Your task to perform on an android device: Open my contact list Image 0: 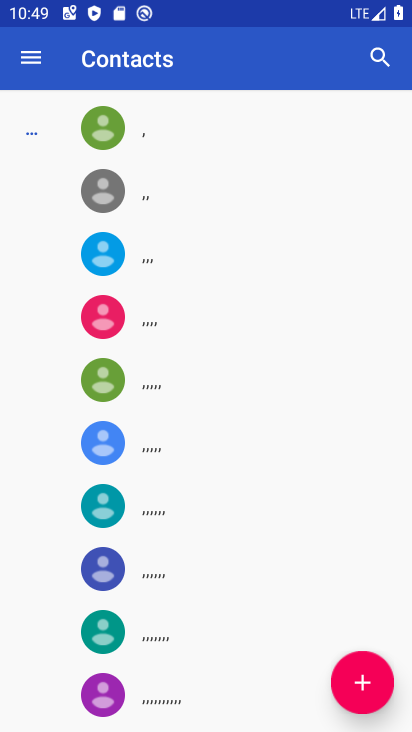
Step 0: task complete